Your task to perform on an android device: check android version Image 0: 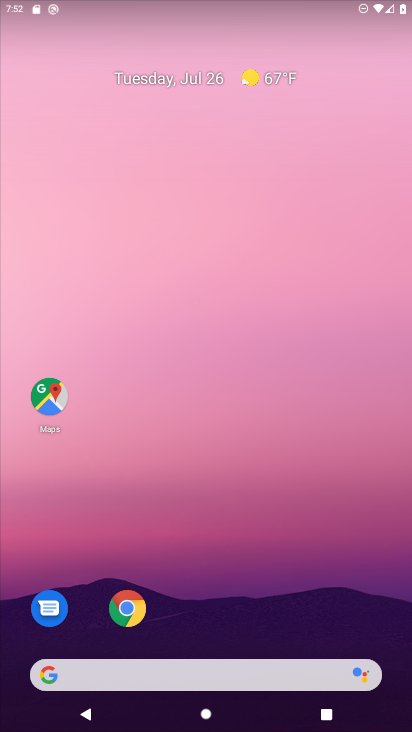
Step 0: drag from (235, 618) to (353, 0)
Your task to perform on an android device: check android version Image 1: 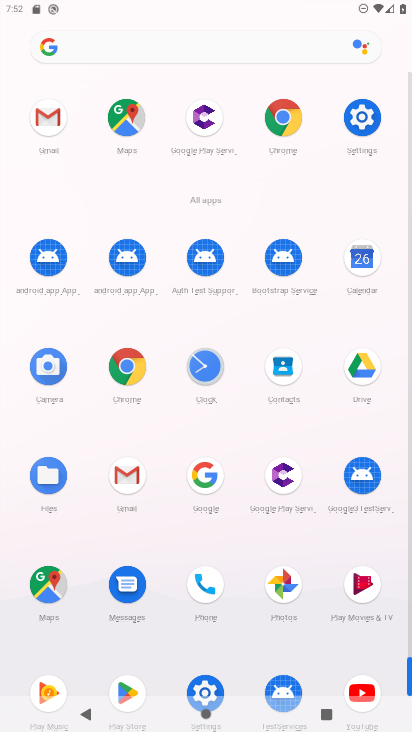
Step 1: click (371, 124)
Your task to perform on an android device: check android version Image 2: 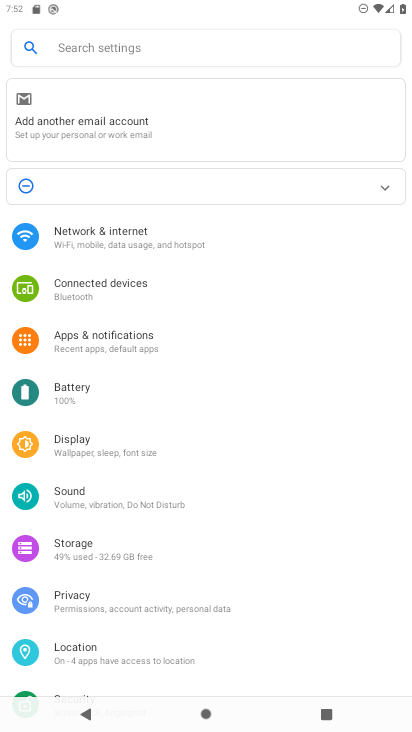
Step 2: drag from (139, 657) to (160, 45)
Your task to perform on an android device: check android version Image 3: 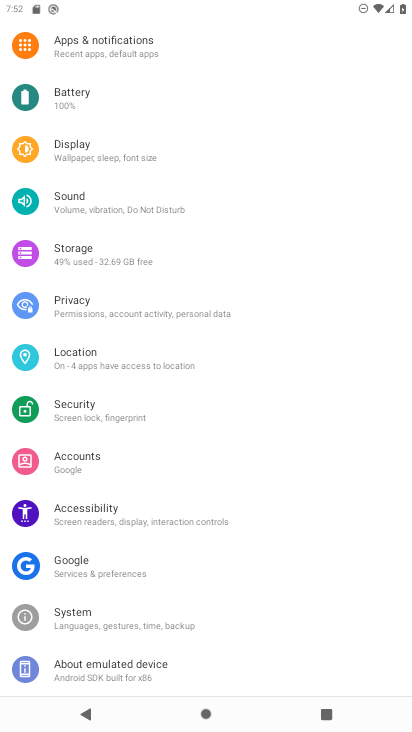
Step 3: click (101, 672)
Your task to perform on an android device: check android version Image 4: 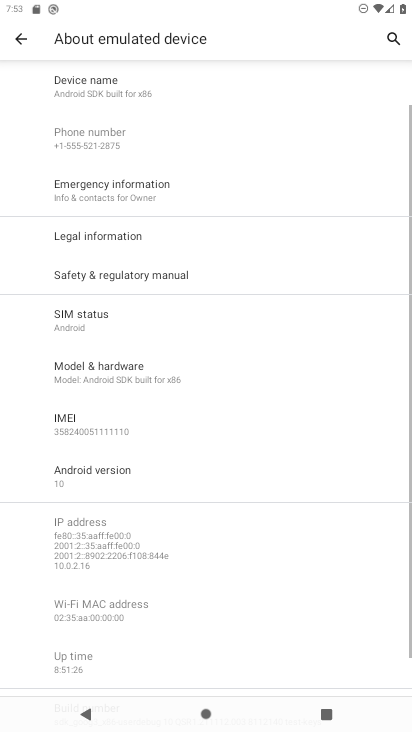
Step 4: click (120, 468)
Your task to perform on an android device: check android version Image 5: 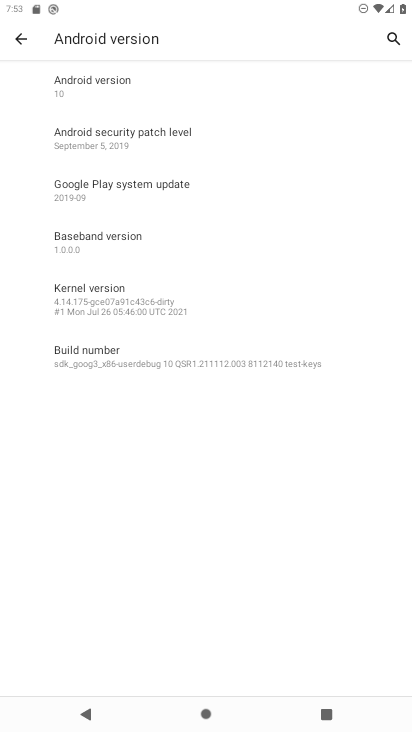
Step 5: task complete